Your task to perform on an android device: turn off notifications settings in the gmail app Image 0: 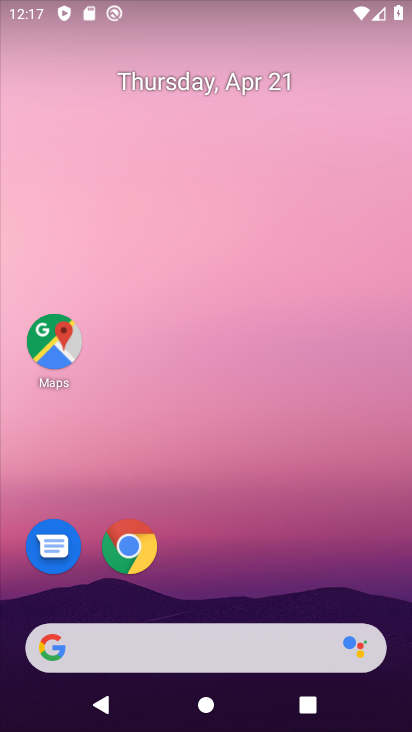
Step 0: drag from (195, 402) to (176, 159)
Your task to perform on an android device: turn off notifications settings in the gmail app Image 1: 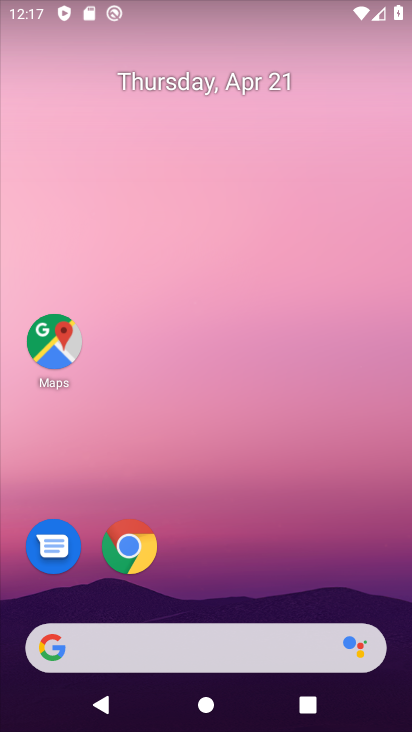
Step 1: drag from (269, 595) to (228, 24)
Your task to perform on an android device: turn off notifications settings in the gmail app Image 2: 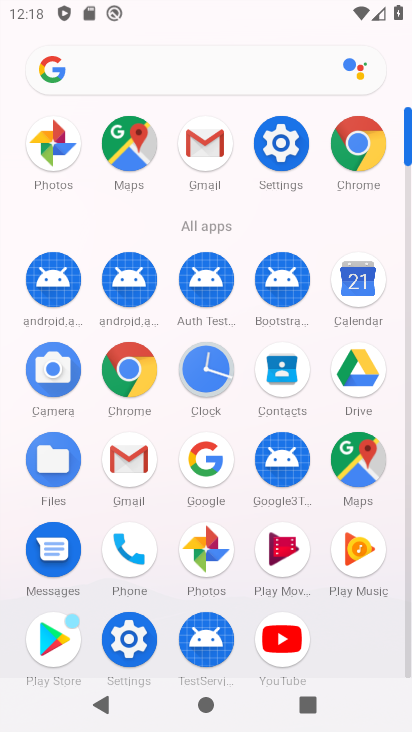
Step 2: click (114, 472)
Your task to perform on an android device: turn off notifications settings in the gmail app Image 3: 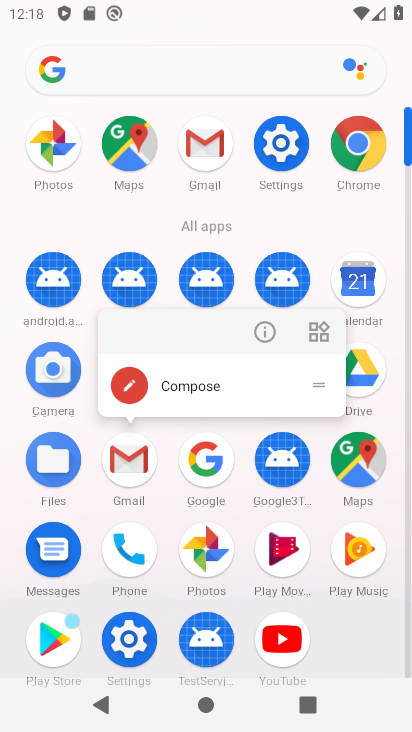
Step 3: click (262, 334)
Your task to perform on an android device: turn off notifications settings in the gmail app Image 4: 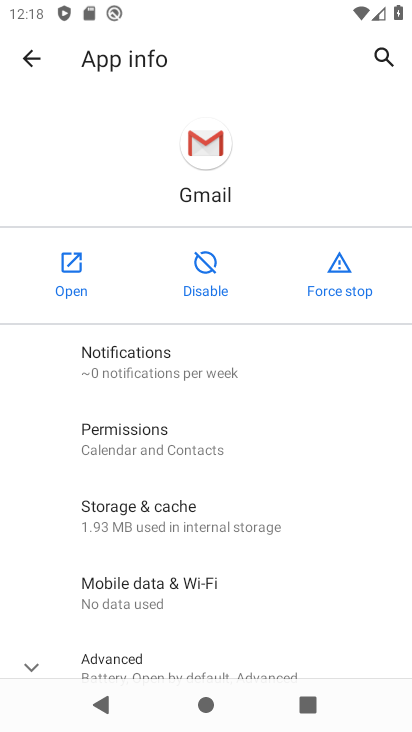
Step 4: click (175, 372)
Your task to perform on an android device: turn off notifications settings in the gmail app Image 5: 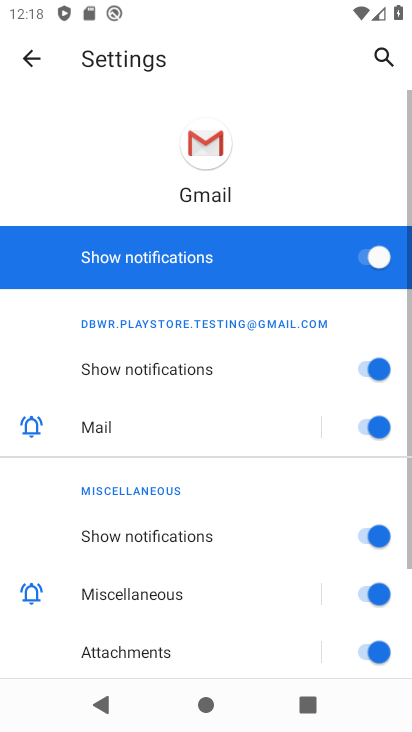
Step 5: click (370, 254)
Your task to perform on an android device: turn off notifications settings in the gmail app Image 6: 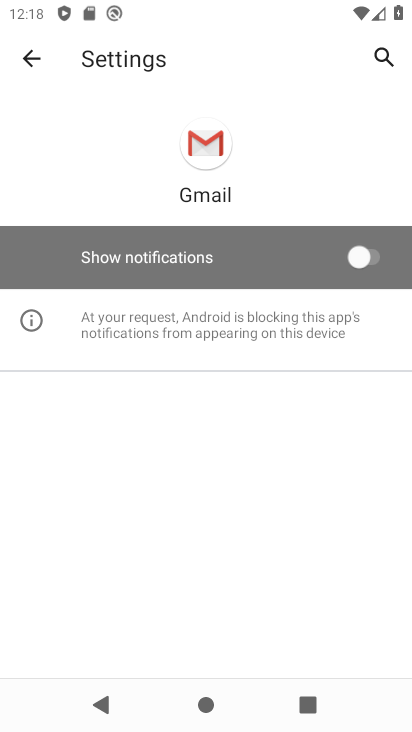
Step 6: task complete